Your task to perform on an android device: toggle location history Image 0: 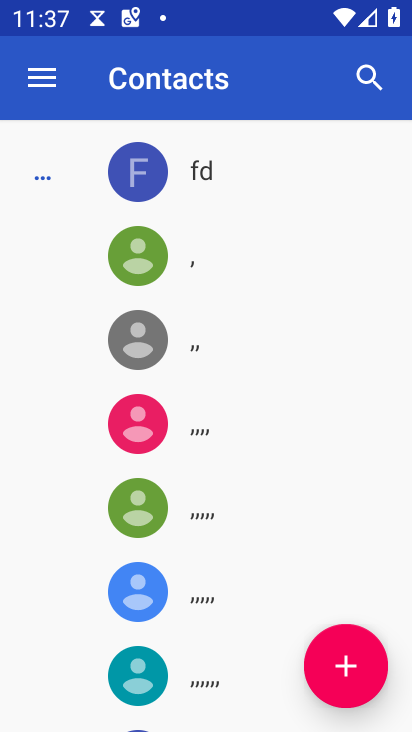
Step 0: press home button
Your task to perform on an android device: toggle location history Image 1: 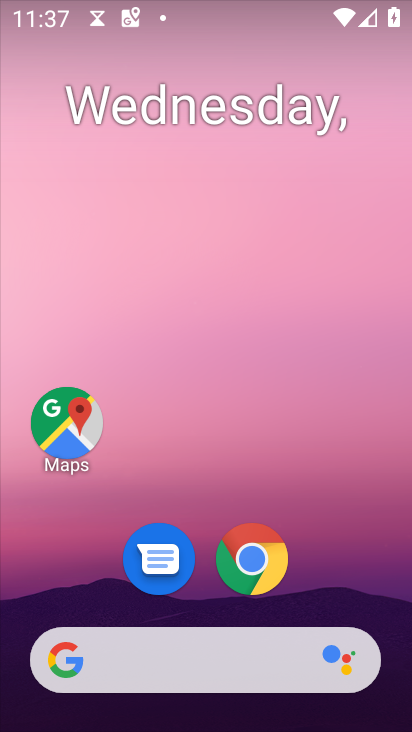
Step 1: click (85, 416)
Your task to perform on an android device: toggle location history Image 2: 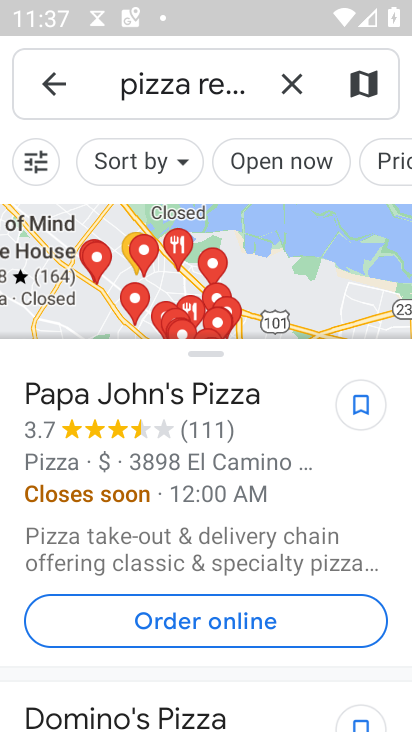
Step 2: click (61, 82)
Your task to perform on an android device: toggle location history Image 3: 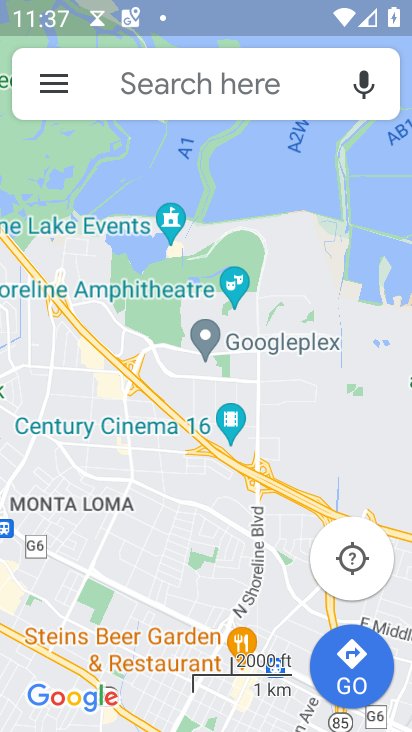
Step 3: click (61, 82)
Your task to perform on an android device: toggle location history Image 4: 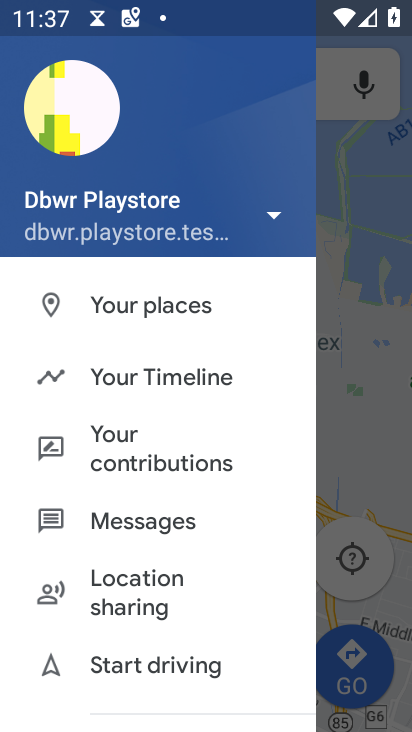
Step 4: click (110, 369)
Your task to perform on an android device: toggle location history Image 5: 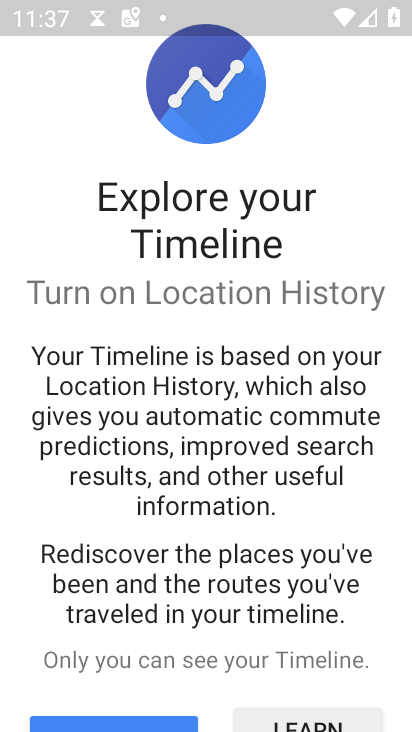
Step 5: drag from (219, 666) to (152, 87)
Your task to perform on an android device: toggle location history Image 6: 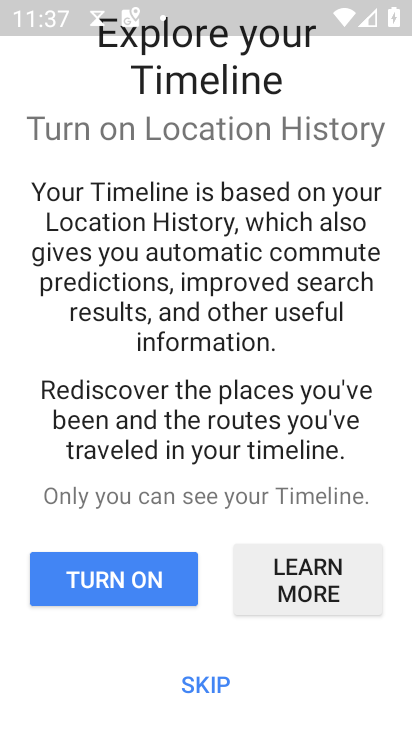
Step 6: click (199, 675)
Your task to perform on an android device: toggle location history Image 7: 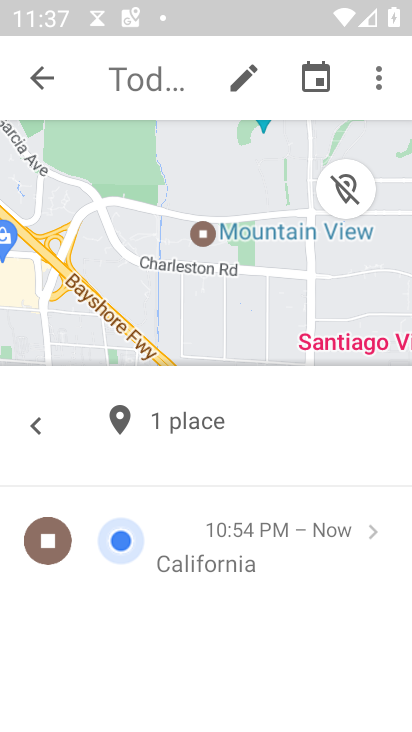
Step 7: click (381, 83)
Your task to perform on an android device: toggle location history Image 8: 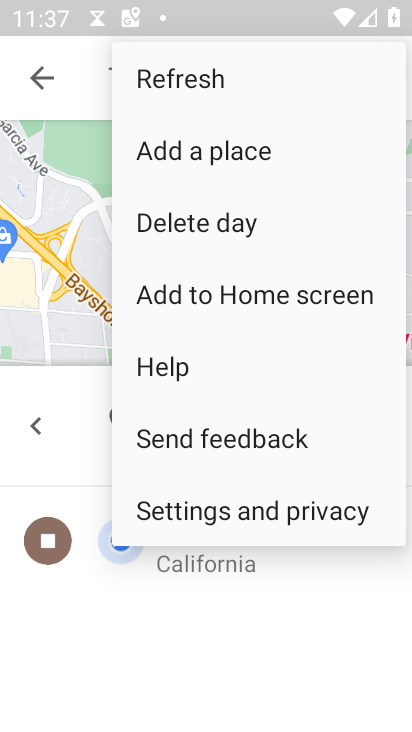
Step 8: click (295, 502)
Your task to perform on an android device: toggle location history Image 9: 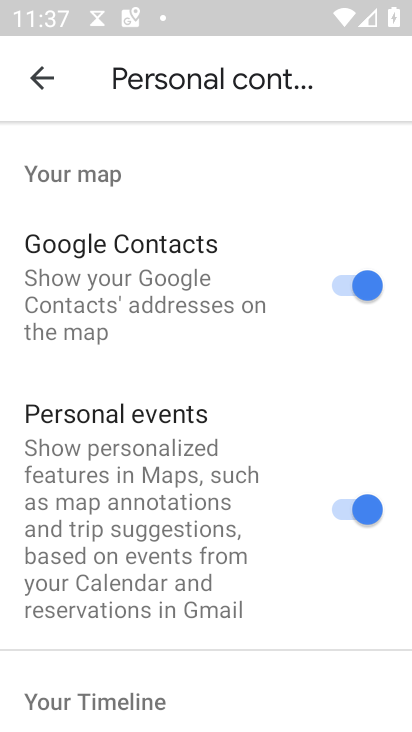
Step 9: drag from (192, 685) to (245, 52)
Your task to perform on an android device: toggle location history Image 10: 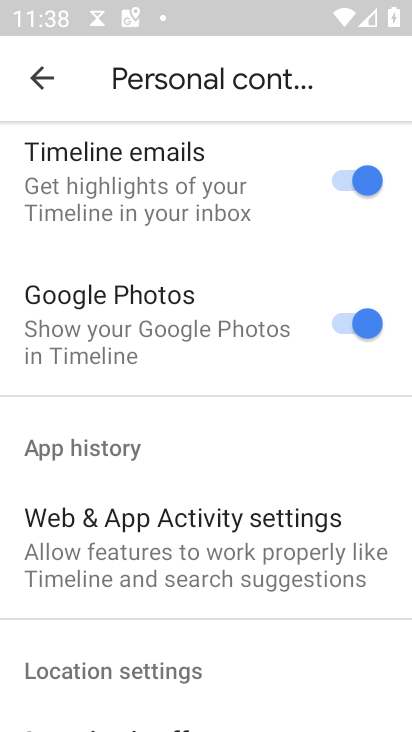
Step 10: drag from (243, 629) to (178, 119)
Your task to perform on an android device: toggle location history Image 11: 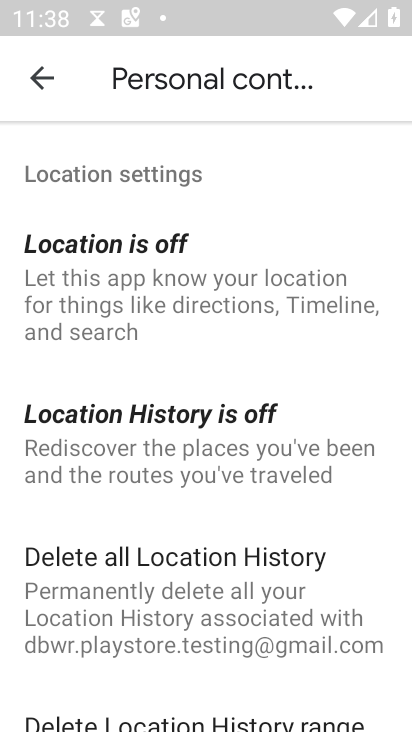
Step 11: click (284, 434)
Your task to perform on an android device: toggle location history Image 12: 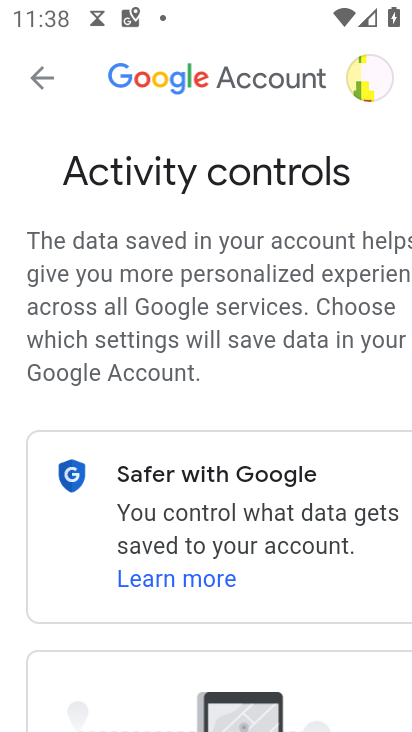
Step 12: drag from (294, 540) to (209, 21)
Your task to perform on an android device: toggle location history Image 13: 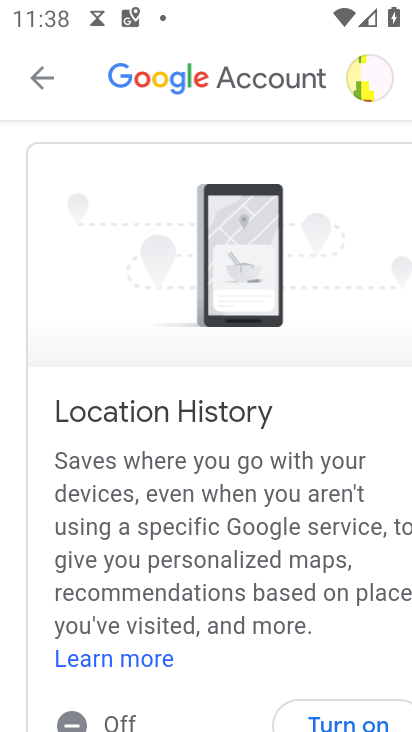
Step 13: drag from (237, 493) to (185, 249)
Your task to perform on an android device: toggle location history Image 14: 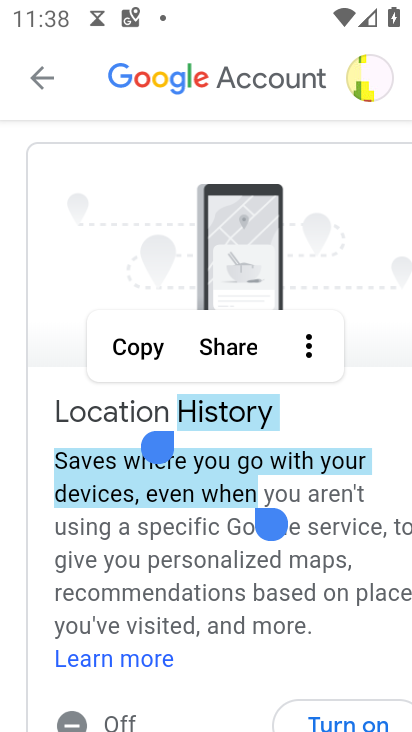
Step 14: click (271, 567)
Your task to perform on an android device: toggle location history Image 15: 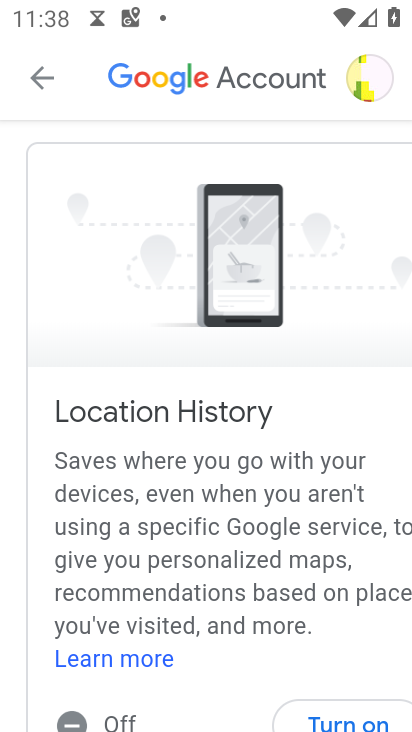
Step 15: drag from (271, 567) to (202, 210)
Your task to perform on an android device: toggle location history Image 16: 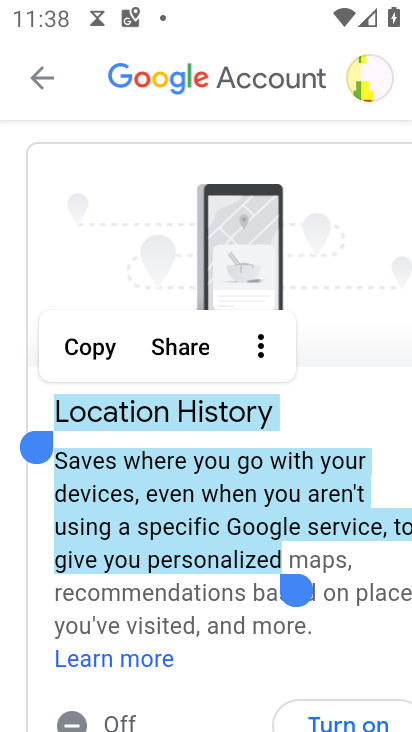
Step 16: click (354, 724)
Your task to perform on an android device: toggle location history Image 17: 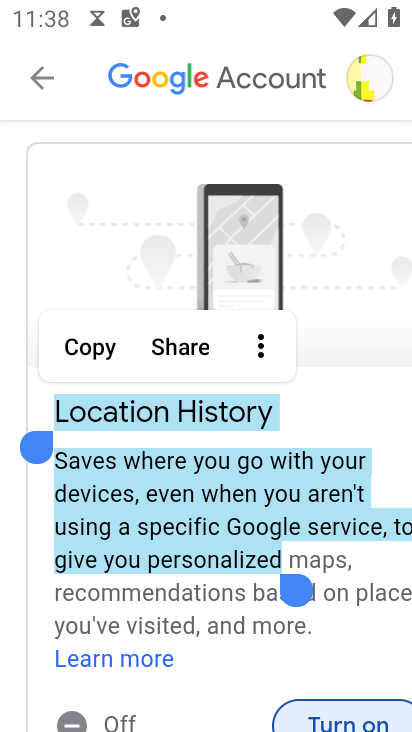
Step 17: click (342, 720)
Your task to perform on an android device: toggle location history Image 18: 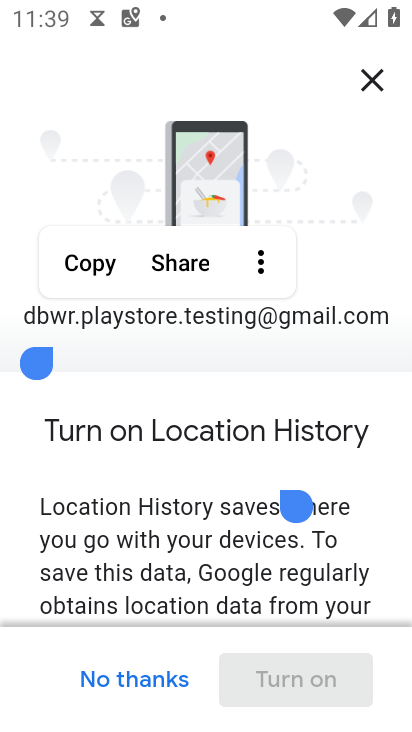
Step 18: drag from (304, 617) to (204, 289)
Your task to perform on an android device: toggle location history Image 19: 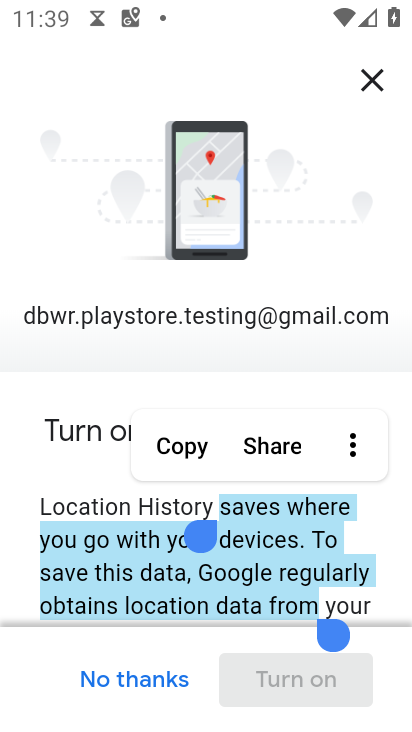
Step 19: click (404, 602)
Your task to perform on an android device: toggle location history Image 20: 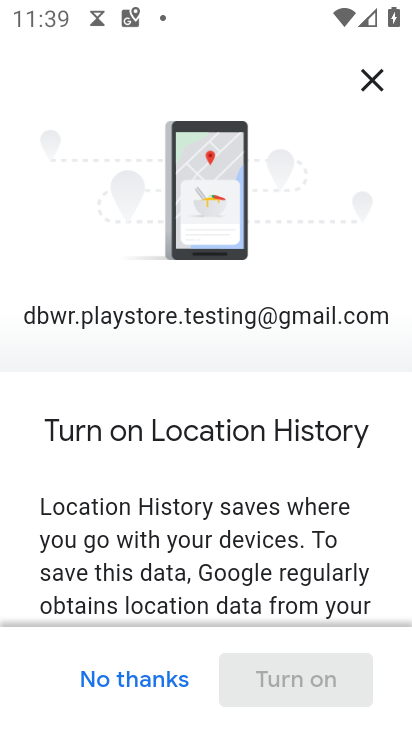
Step 20: drag from (324, 596) to (303, 236)
Your task to perform on an android device: toggle location history Image 21: 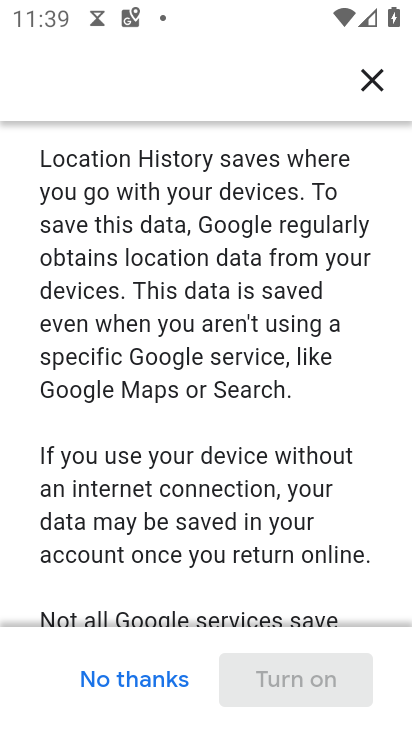
Step 21: drag from (297, 593) to (254, 175)
Your task to perform on an android device: toggle location history Image 22: 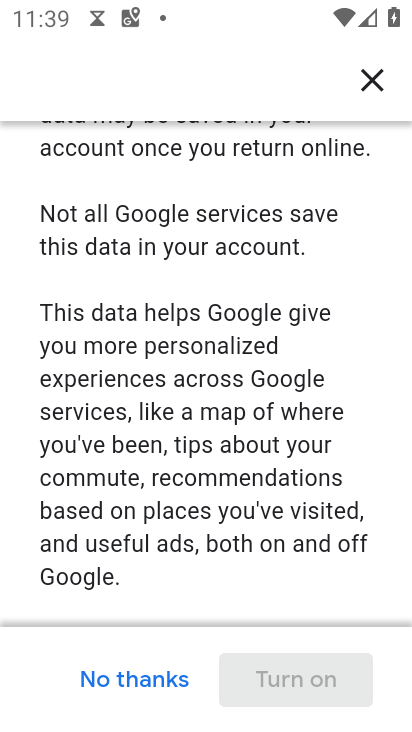
Step 22: drag from (295, 578) to (269, 186)
Your task to perform on an android device: toggle location history Image 23: 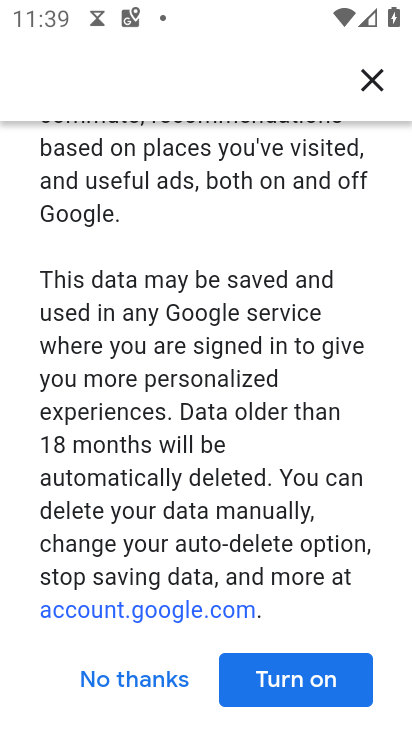
Step 23: click (312, 674)
Your task to perform on an android device: toggle location history Image 24: 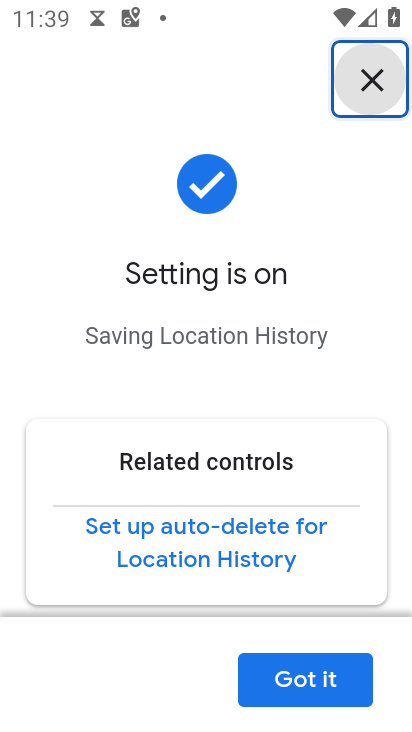
Step 24: click (312, 674)
Your task to perform on an android device: toggle location history Image 25: 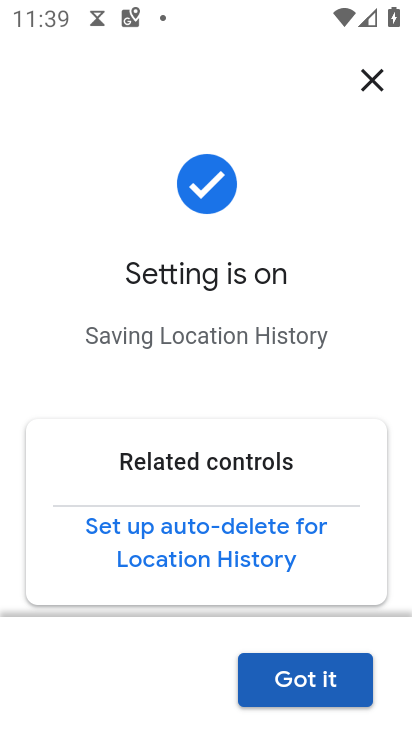
Step 25: click (326, 694)
Your task to perform on an android device: toggle location history Image 26: 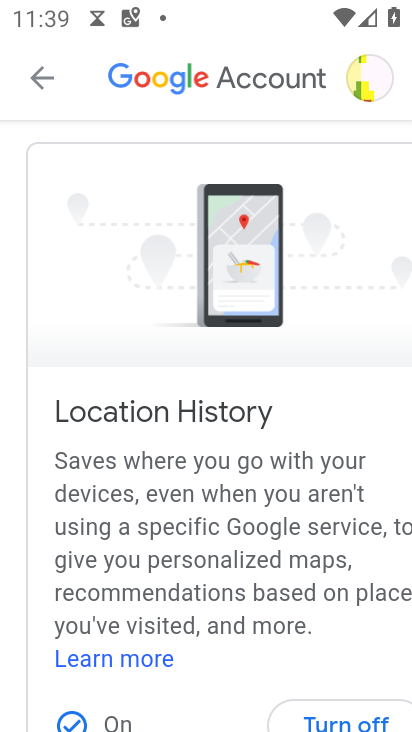
Step 26: task complete